Your task to perform on an android device: open app "Adobe Acrobat Reader: Edit PDF" Image 0: 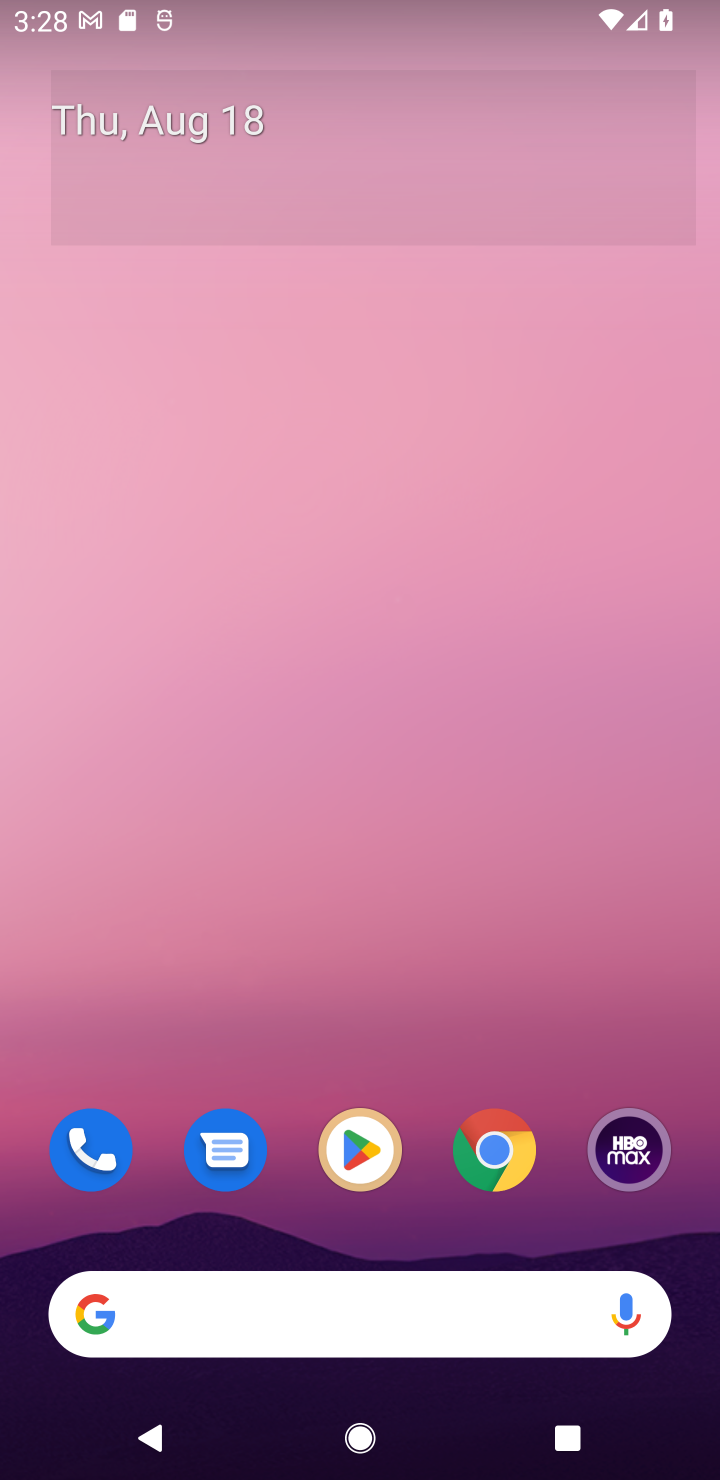
Step 0: click (367, 1152)
Your task to perform on an android device: open app "Adobe Acrobat Reader: Edit PDF" Image 1: 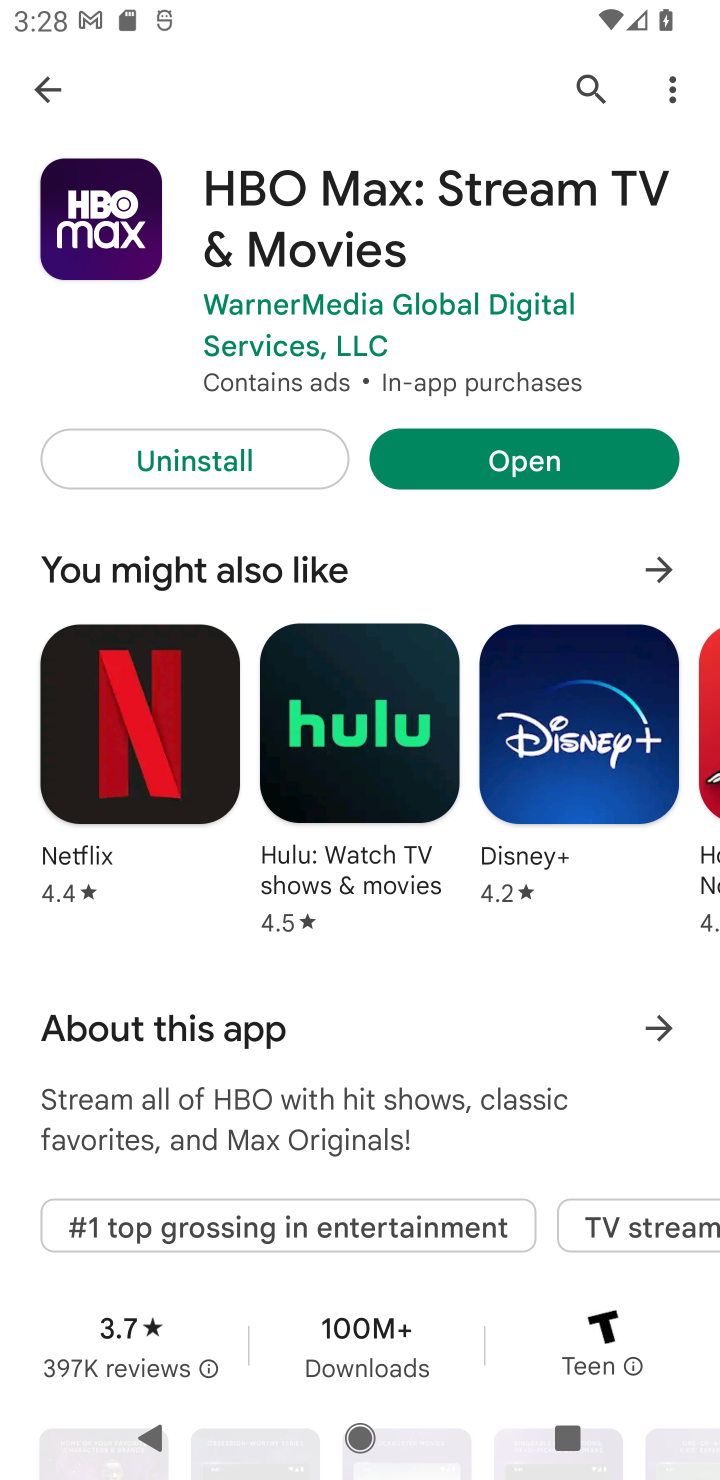
Step 1: click (581, 90)
Your task to perform on an android device: open app "Adobe Acrobat Reader: Edit PDF" Image 2: 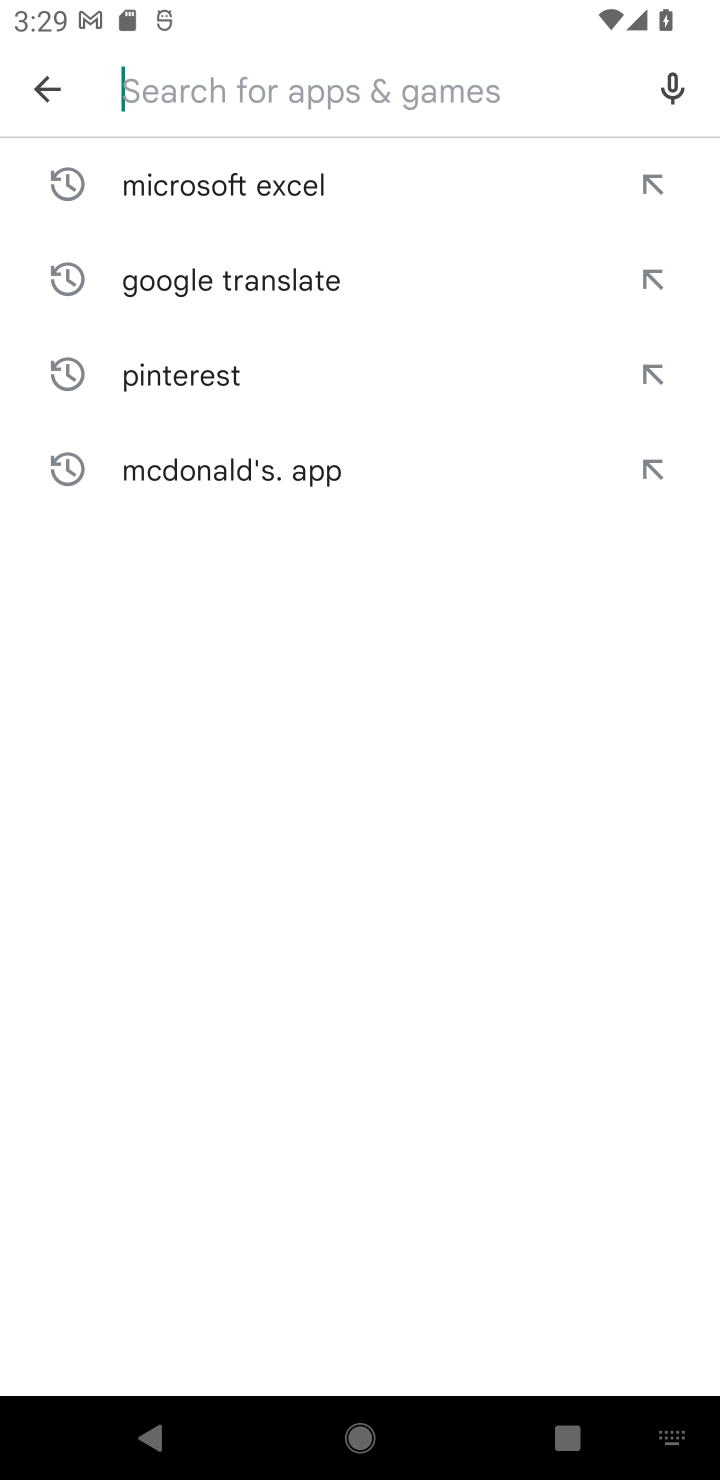
Step 2: type "Adobe Acrobat Reader: Edit PDF"
Your task to perform on an android device: open app "Adobe Acrobat Reader: Edit PDF" Image 3: 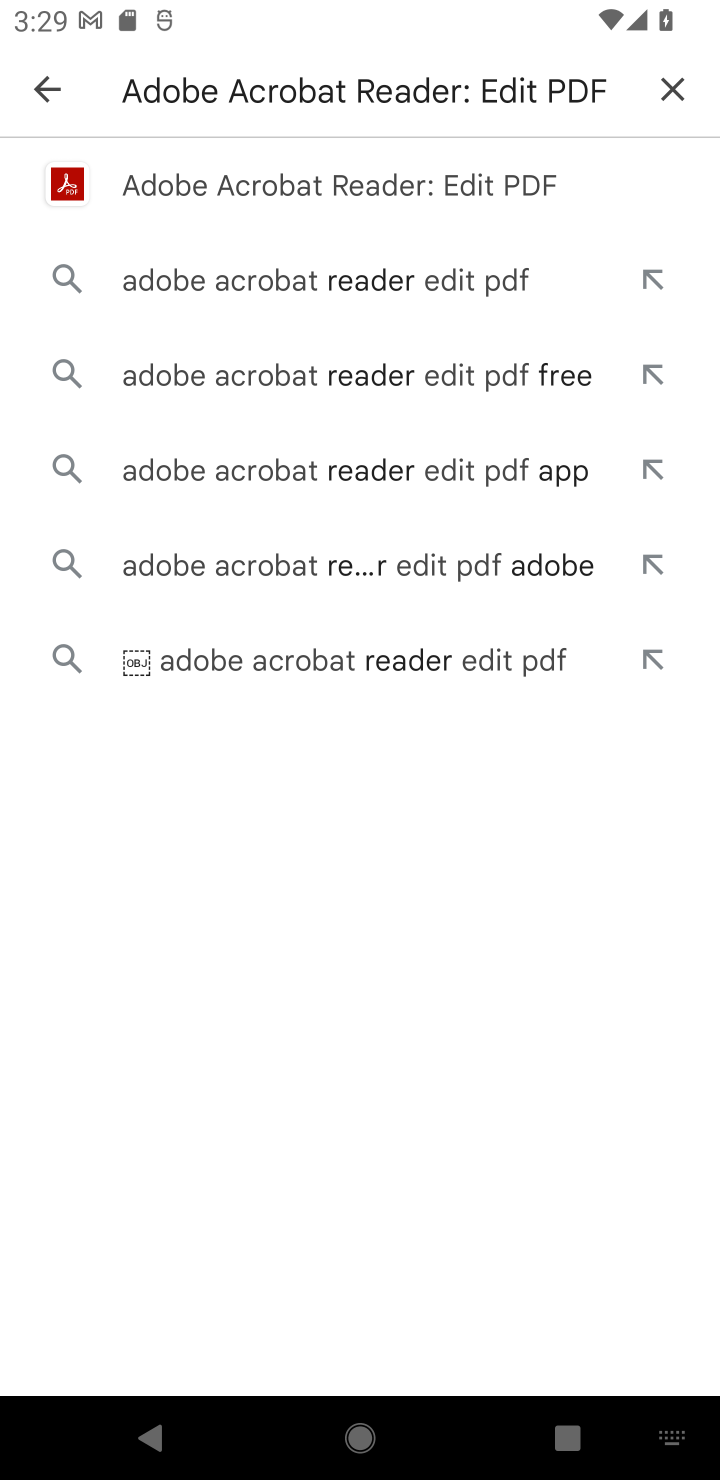
Step 3: click (256, 184)
Your task to perform on an android device: open app "Adobe Acrobat Reader: Edit PDF" Image 4: 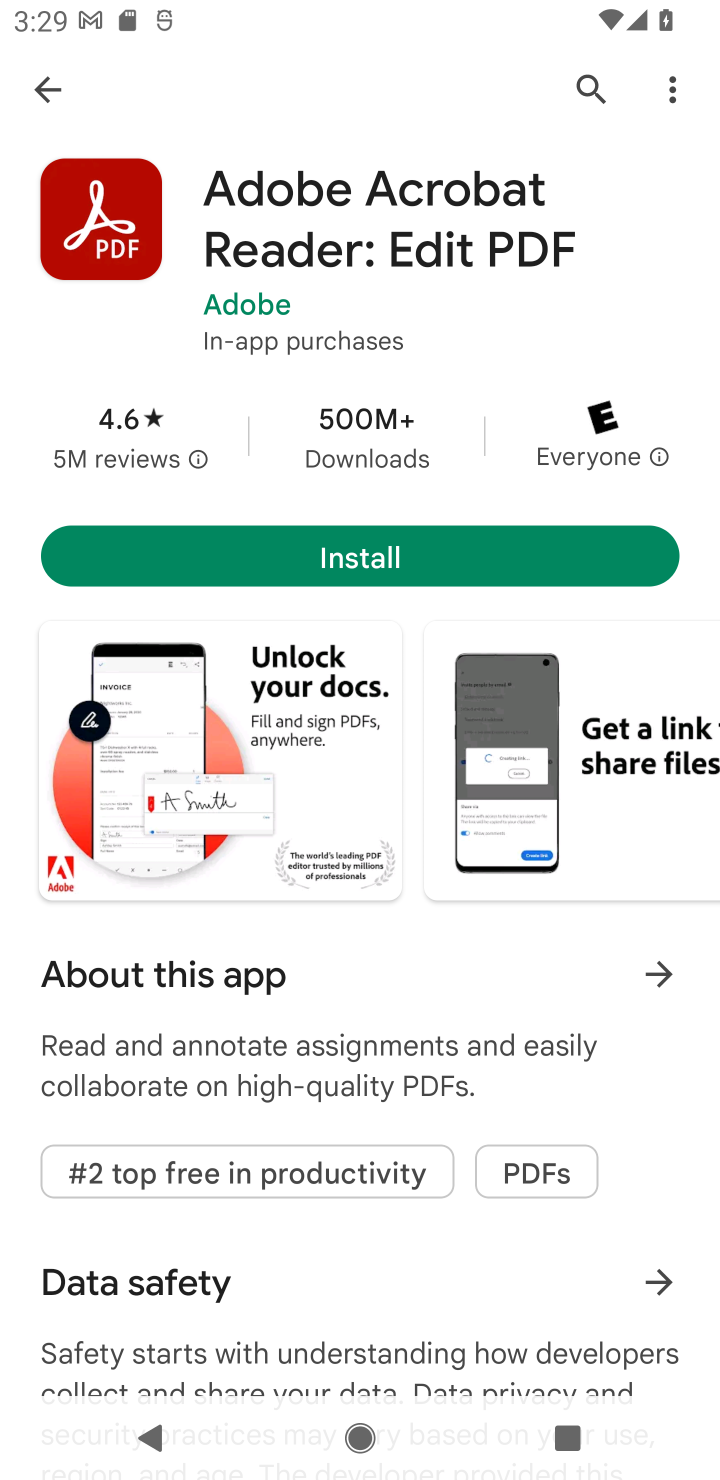
Step 4: task complete